Your task to perform on an android device: Go to Wikipedia Image 0: 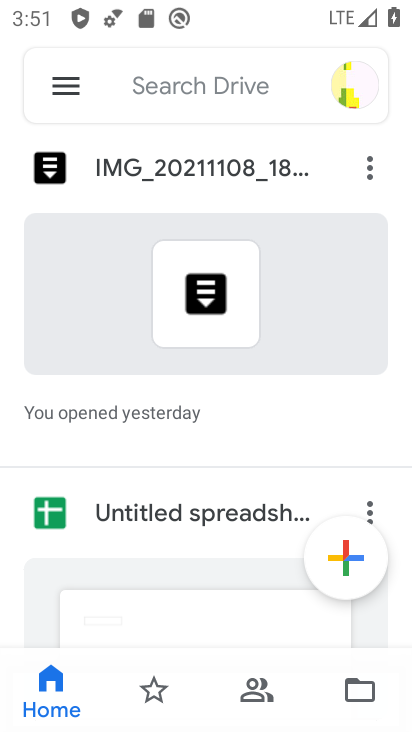
Step 0: press home button
Your task to perform on an android device: Go to Wikipedia Image 1: 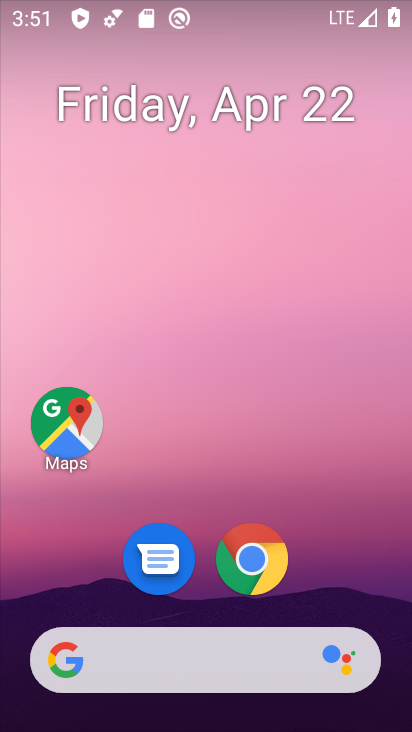
Step 1: click (259, 561)
Your task to perform on an android device: Go to Wikipedia Image 2: 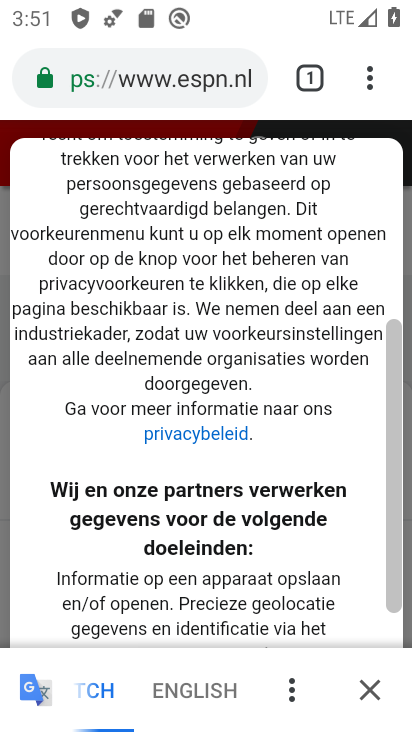
Step 2: click (302, 79)
Your task to perform on an android device: Go to Wikipedia Image 3: 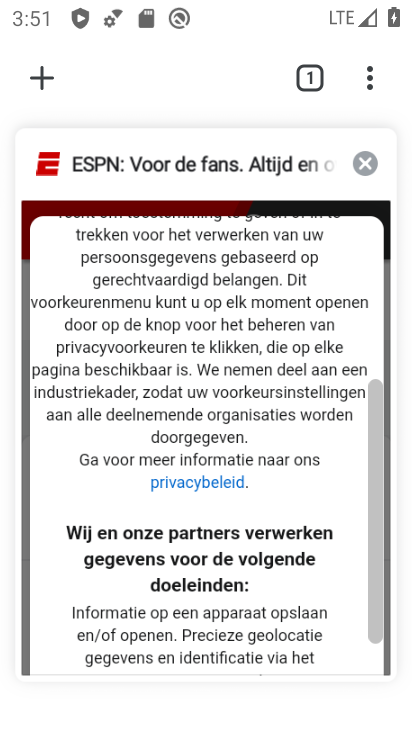
Step 3: click (47, 80)
Your task to perform on an android device: Go to Wikipedia Image 4: 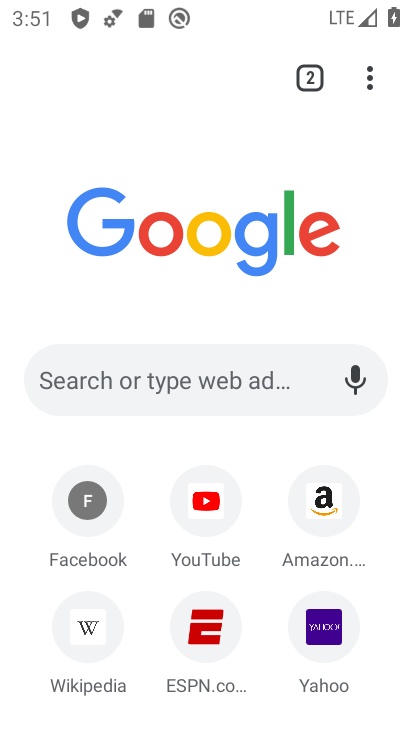
Step 4: click (87, 630)
Your task to perform on an android device: Go to Wikipedia Image 5: 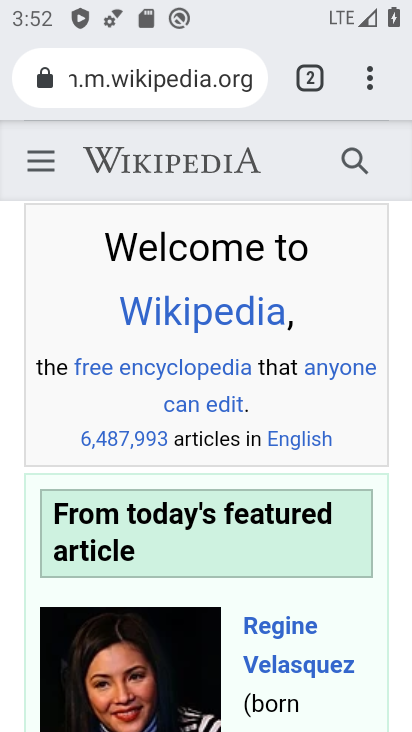
Step 5: task complete